Your task to perform on an android device: Search for Italian restaurants on Maps Image 0: 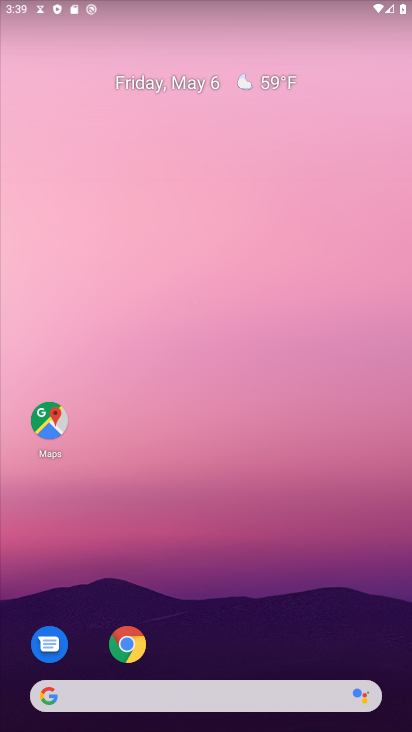
Step 0: click (48, 421)
Your task to perform on an android device: Search for Italian restaurants on Maps Image 1: 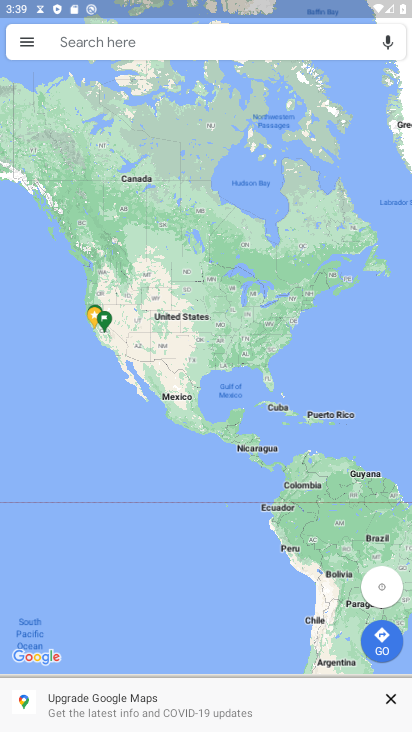
Step 1: click (172, 40)
Your task to perform on an android device: Search for Italian restaurants on Maps Image 2: 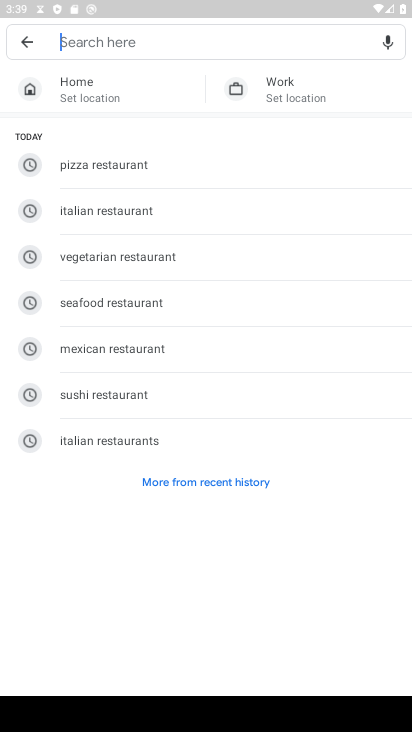
Step 2: type "Italian restaurants"
Your task to perform on an android device: Search for Italian restaurants on Maps Image 3: 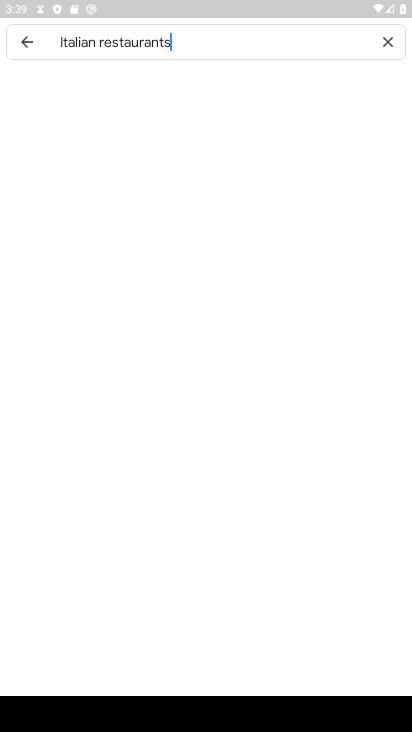
Step 3: type ""
Your task to perform on an android device: Search for Italian restaurants on Maps Image 4: 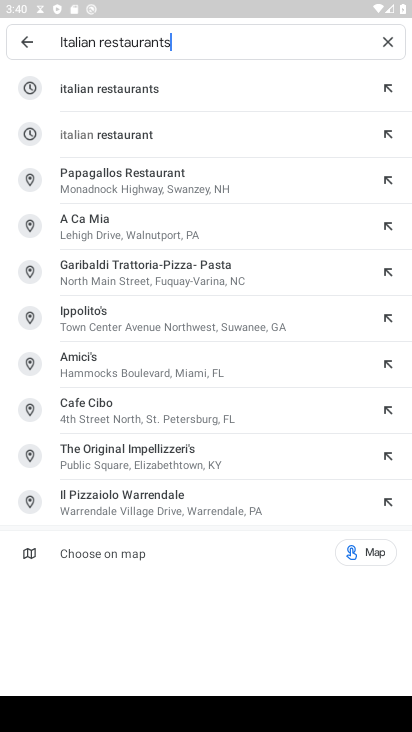
Step 4: click (139, 84)
Your task to perform on an android device: Search for Italian restaurants on Maps Image 5: 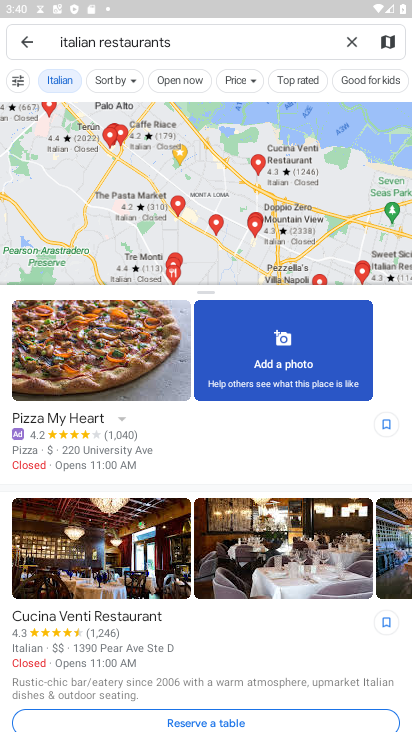
Step 5: task complete